Your task to perform on an android device: Open Google Chrome and open the bookmarks view Image 0: 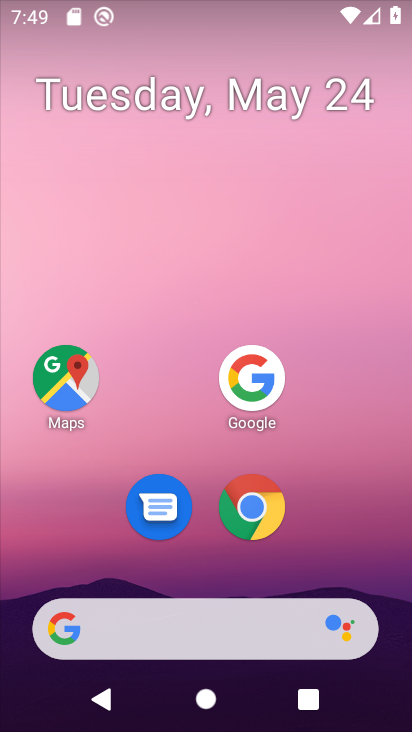
Step 0: press home button
Your task to perform on an android device: Open Google Chrome and open the bookmarks view Image 1: 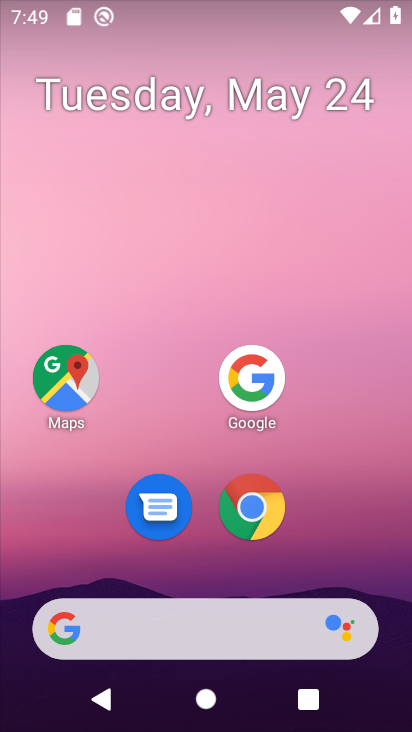
Step 1: click (257, 521)
Your task to perform on an android device: Open Google Chrome and open the bookmarks view Image 2: 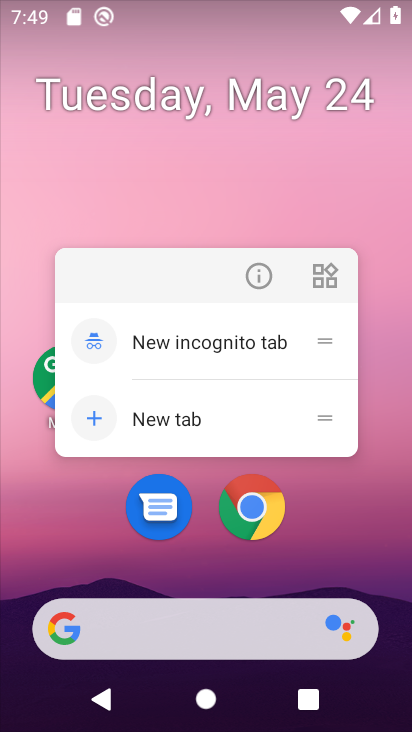
Step 2: click (249, 513)
Your task to perform on an android device: Open Google Chrome and open the bookmarks view Image 3: 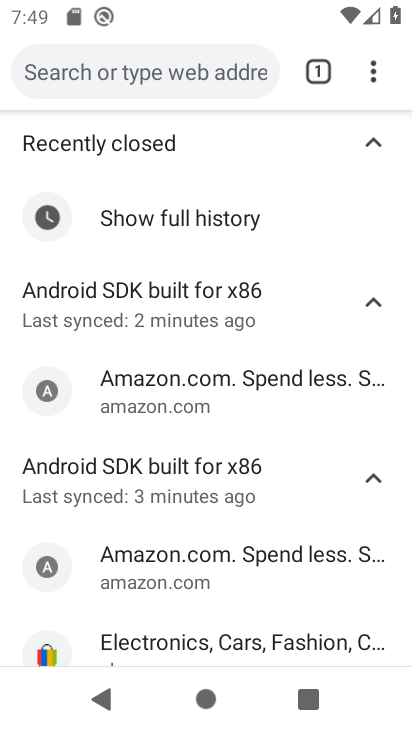
Step 3: task complete